Your task to perform on an android device: Go to Google Image 0: 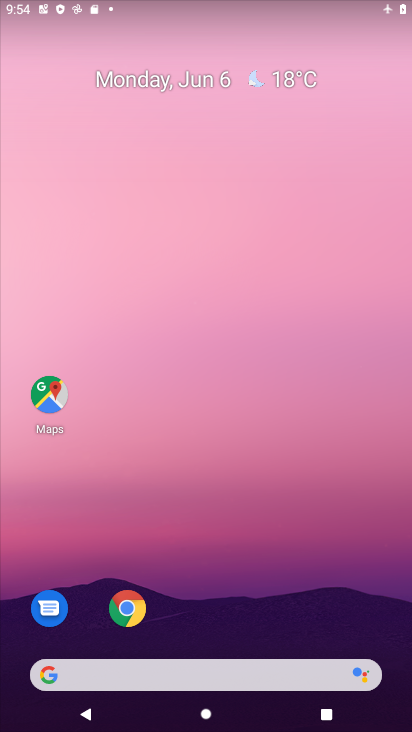
Step 0: drag from (271, 606) to (188, 216)
Your task to perform on an android device: Go to Google Image 1: 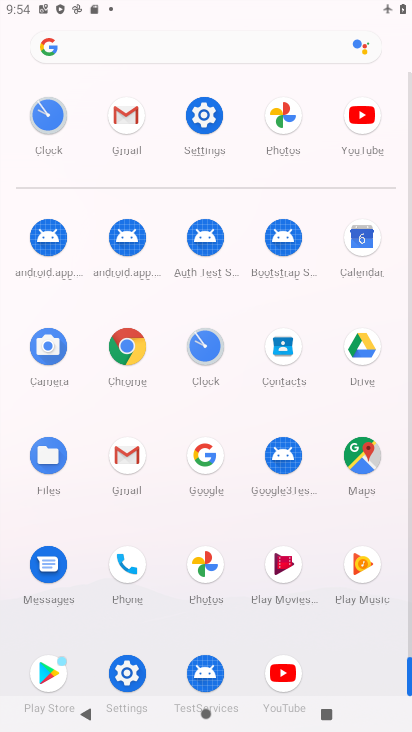
Step 1: click (203, 454)
Your task to perform on an android device: Go to Google Image 2: 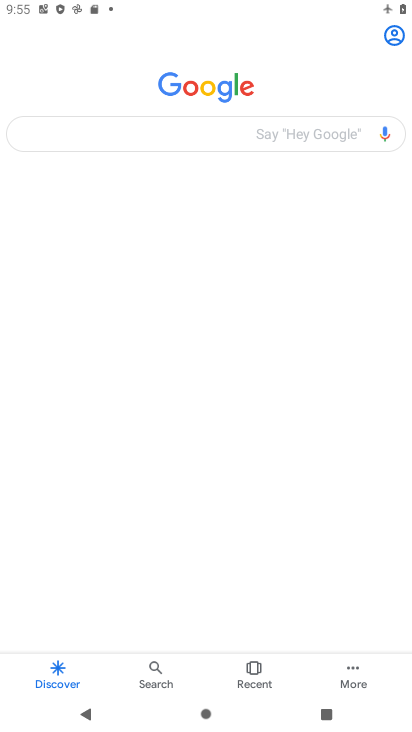
Step 2: task complete